Your task to perform on an android device: Open the map Image 0: 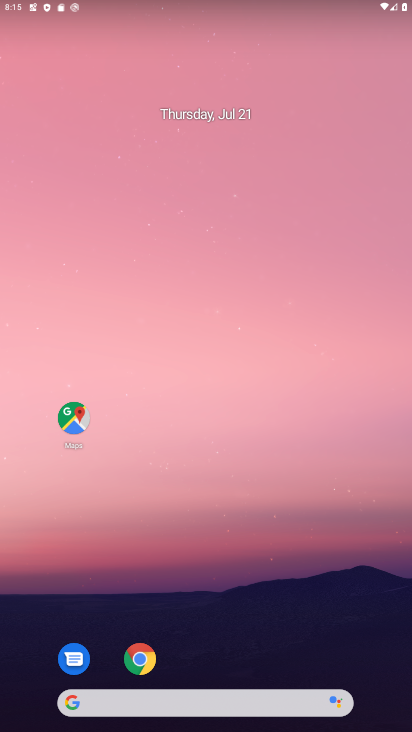
Step 0: press home button
Your task to perform on an android device: Open the map Image 1: 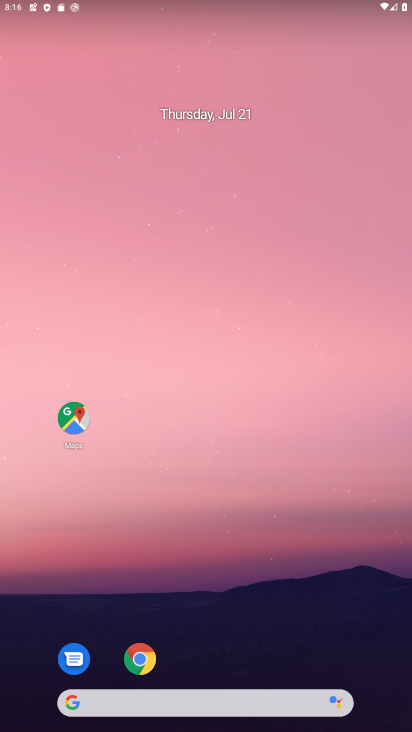
Step 1: click (73, 417)
Your task to perform on an android device: Open the map Image 2: 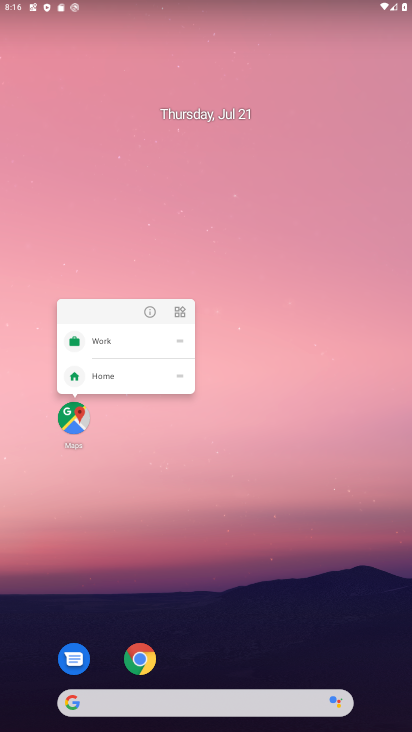
Step 2: click (72, 415)
Your task to perform on an android device: Open the map Image 3: 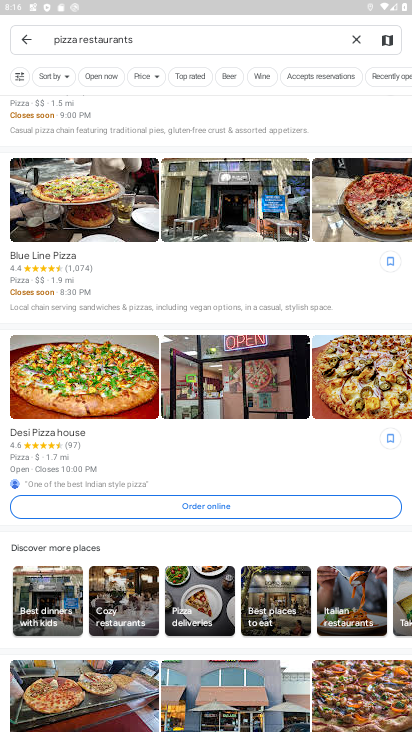
Step 3: click (23, 32)
Your task to perform on an android device: Open the map Image 4: 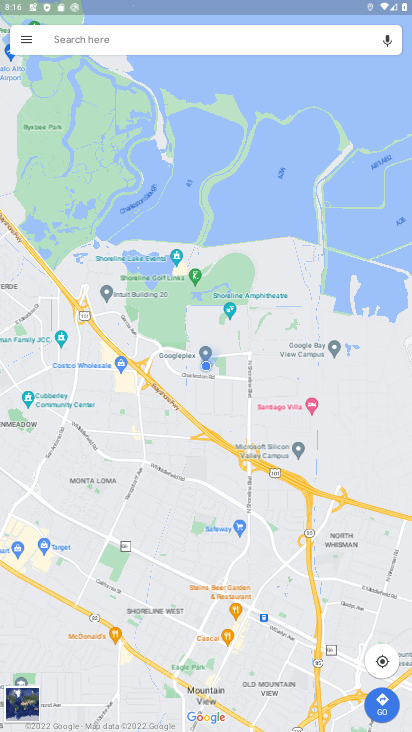
Step 4: task complete